Your task to perform on an android device: Open settings on Google Maps Image 0: 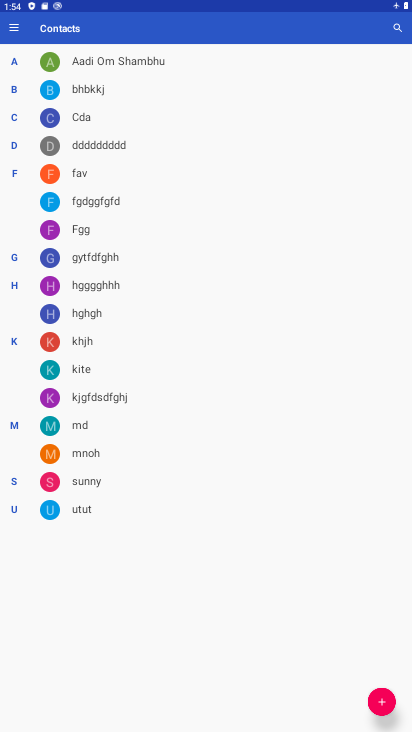
Step 0: press home button
Your task to perform on an android device: Open settings on Google Maps Image 1: 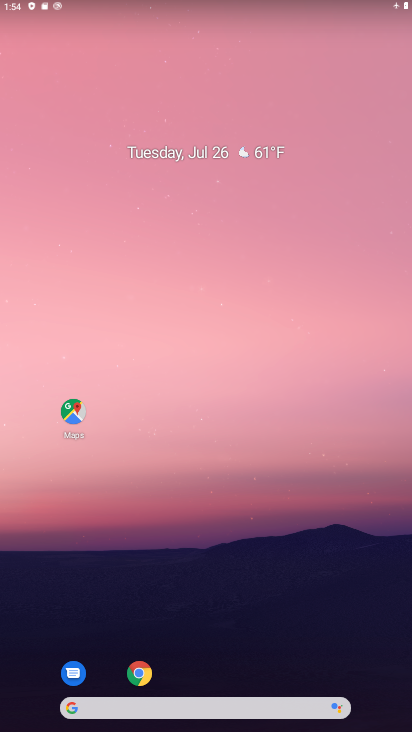
Step 1: drag from (205, 593) to (235, 107)
Your task to perform on an android device: Open settings on Google Maps Image 2: 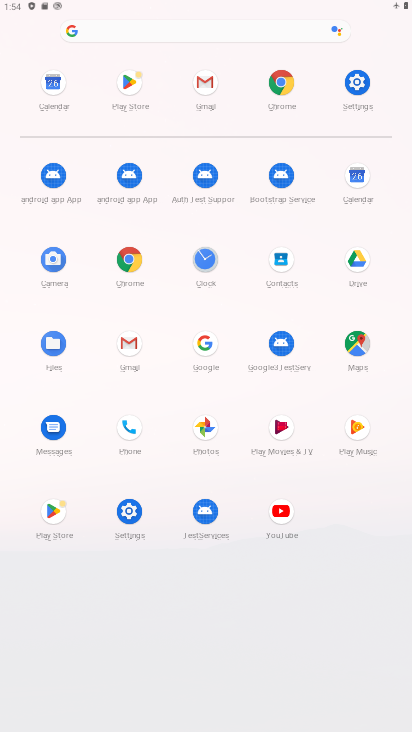
Step 2: click (357, 337)
Your task to perform on an android device: Open settings on Google Maps Image 3: 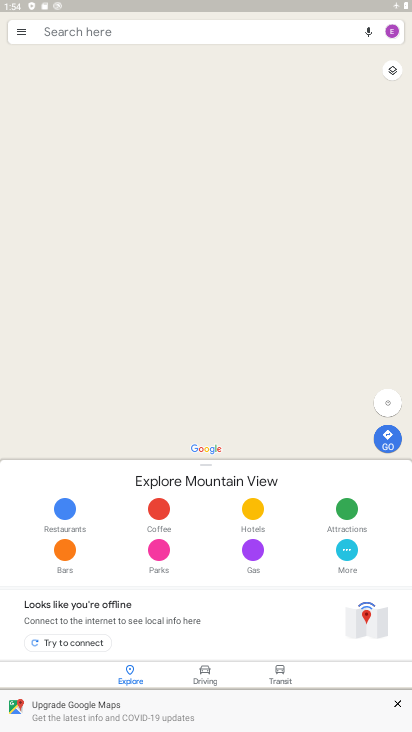
Step 3: drag from (22, 28) to (40, 279)
Your task to perform on an android device: Open settings on Google Maps Image 4: 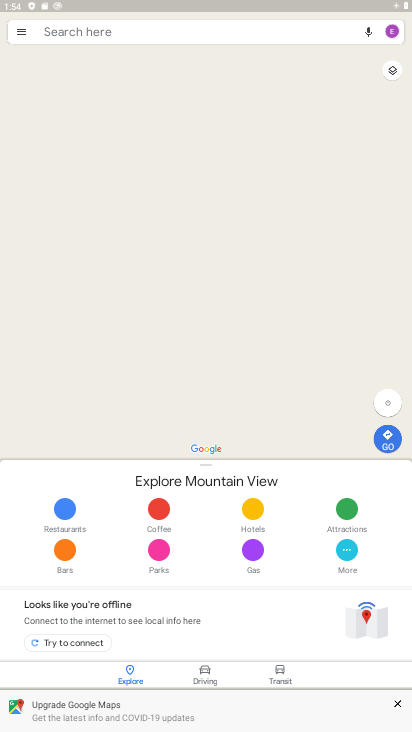
Step 4: click (17, 33)
Your task to perform on an android device: Open settings on Google Maps Image 5: 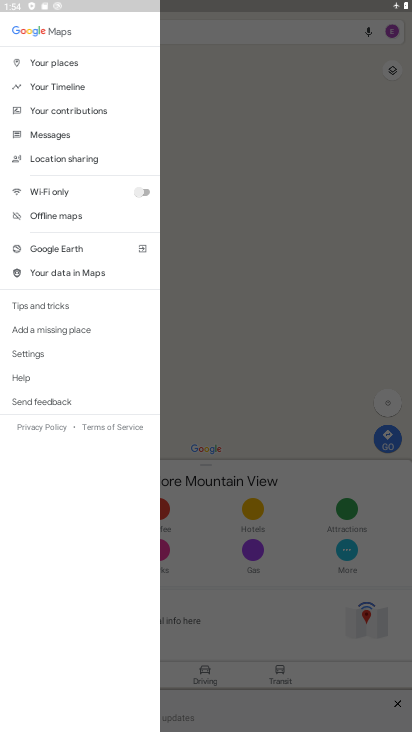
Step 5: click (48, 355)
Your task to perform on an android device: Open settings on Google Maps Image 6: 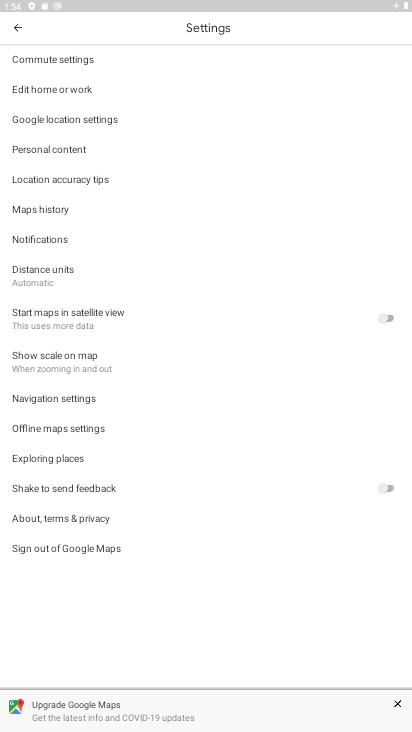
Step 6: task complete